Your task to perform on an android device: Clear all items from cart on walmart. Search for bose soundsport free on walmart, select the first entry, and add it to the cart. Image 0: 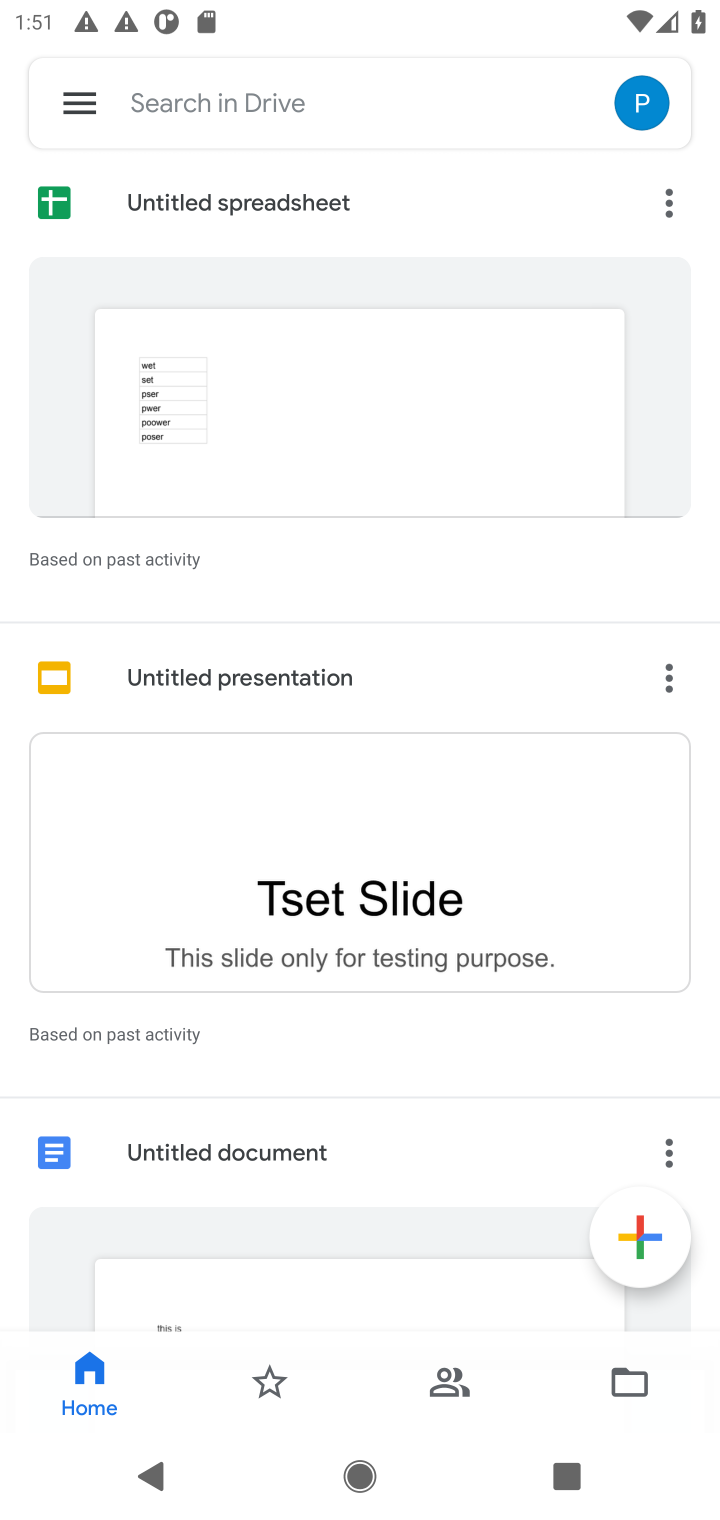
Step 0: press home button
Your task to perform on an android device: Clear all items from cart on walmart. Search for bose soundsport free on walmart, select the first entry, and add it to the cart. Image 1: 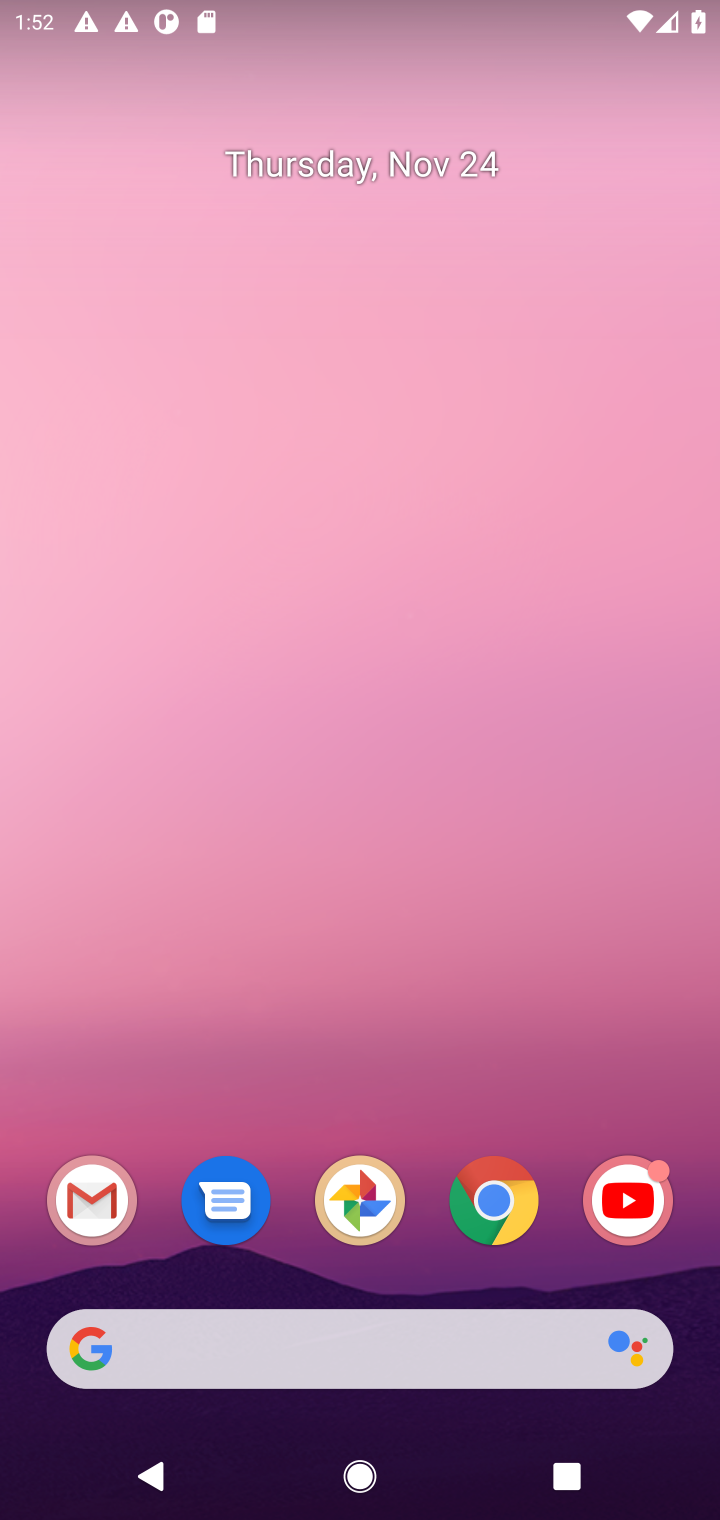
Step 1: click (253, 1368)
Your task to perform on an android device: Clear all items from cart on walmart. Search for bose soundsport free on walmart, select the first entry, and add it to the cart. Image 2: 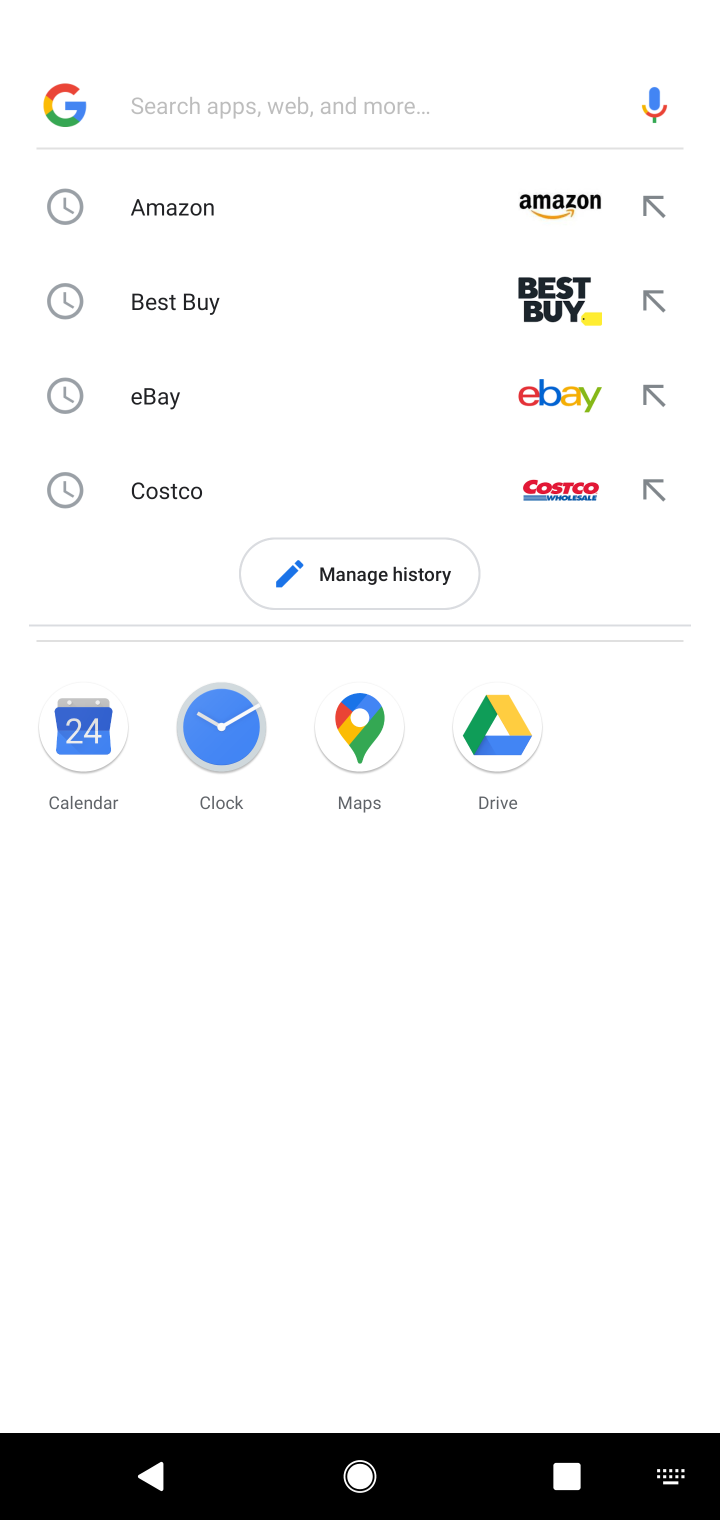
Step 2: type "walmart"
Your task to perform on an android device: Clear all items from cart on walmart. Search for bose soundsport free on walmart, select the first entry, and add it to the cart. Image 3: 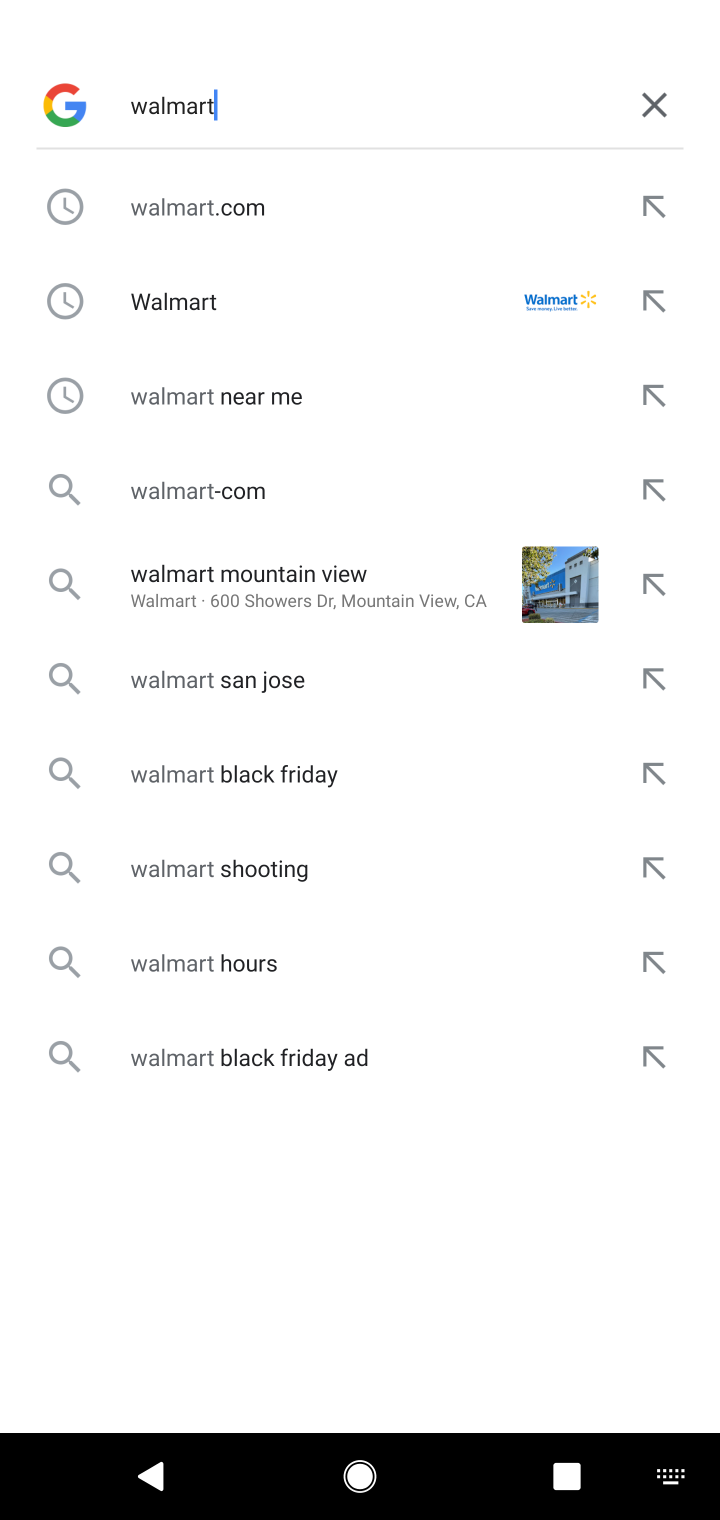
Step 3: click (403, 220)
Your task to perform on an android device: Clear all items from cart on walmart. Search for bose soundsport free on walmart, select the first entry, and add it to the cart. Image 4: 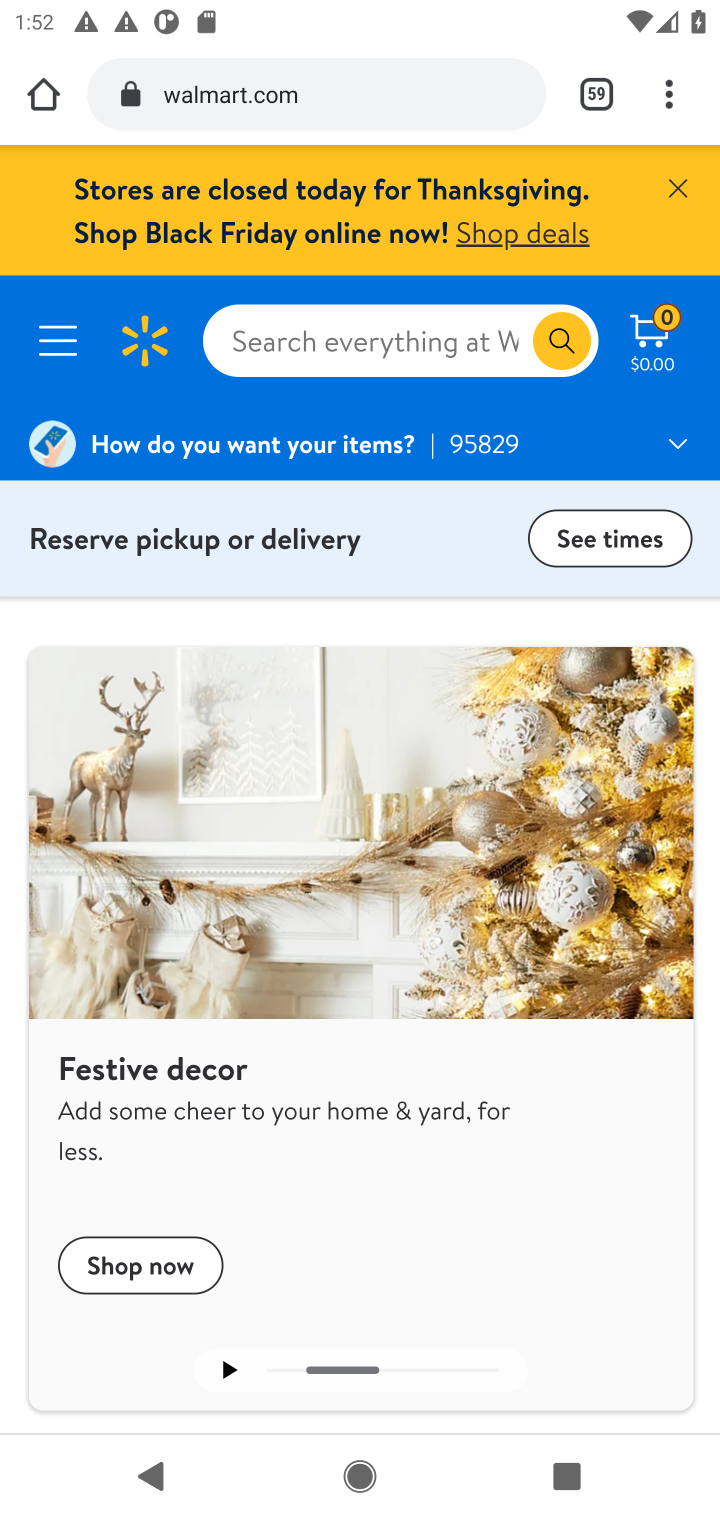
Step 4: click (688, 217)
Your task to perform on an android device: Clear all items from cart on walmart. Search for bose soundsport free on walmart, select the first entry, and add it to the cart. Image 5: 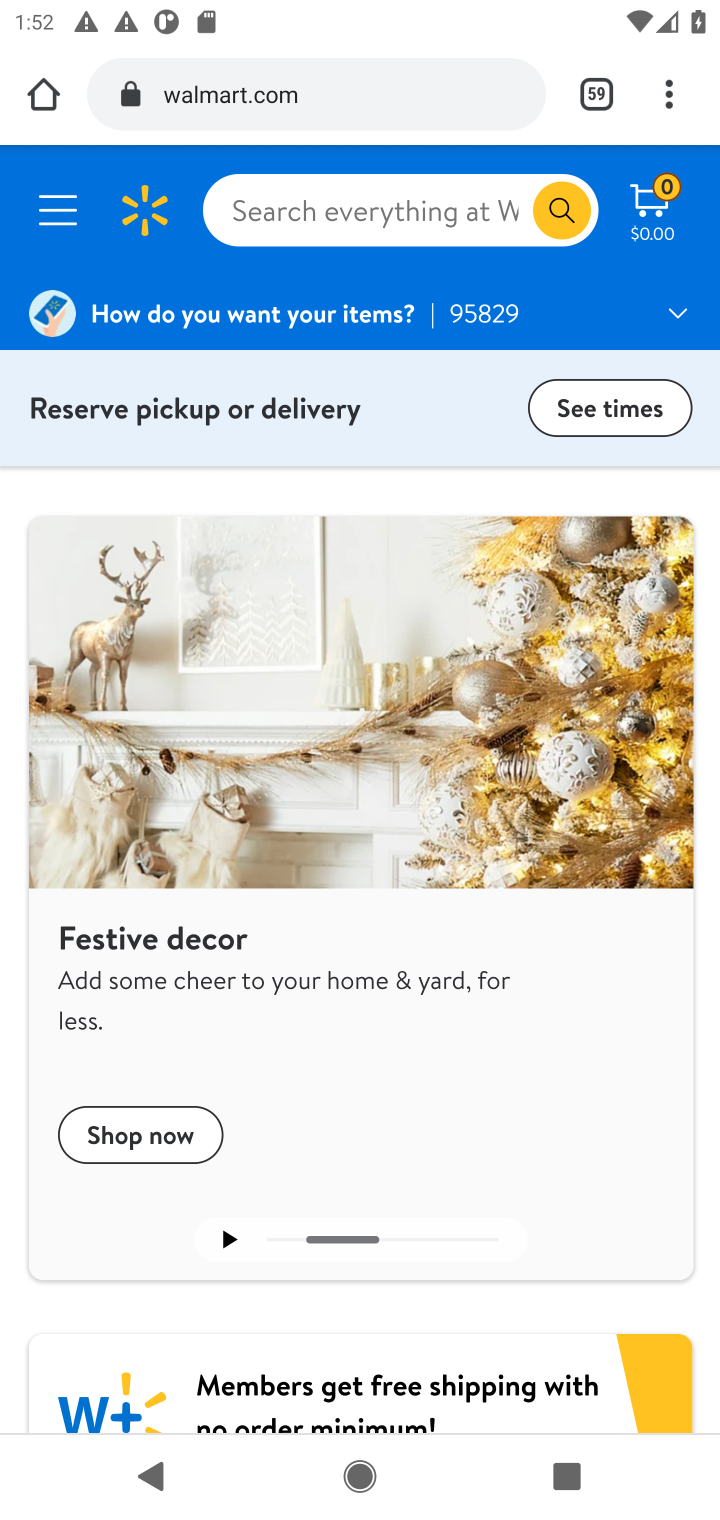
Step 5: click (389, 234)
Your task to perform on an android device: Clear all items from cart on walmart. Search for bose soundsport free on walmart, select the first entry, and add it to the cart. Image 6: 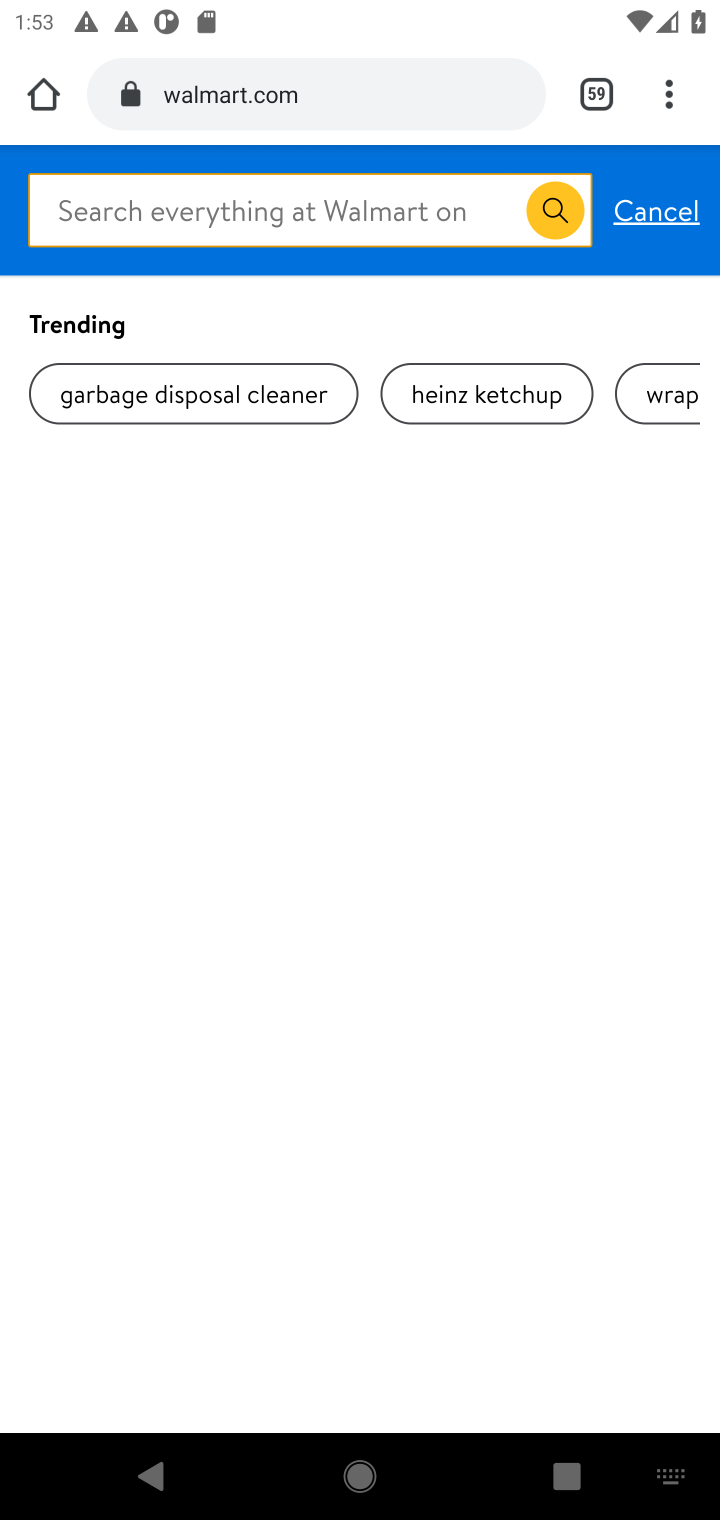
Step 6: type "bose soundsport"
Your task to perform on an android device: Clear all items from cart on walmart. Search for bose soundsport free on walmart, select the first entry, and add it to the cart. Image 7: 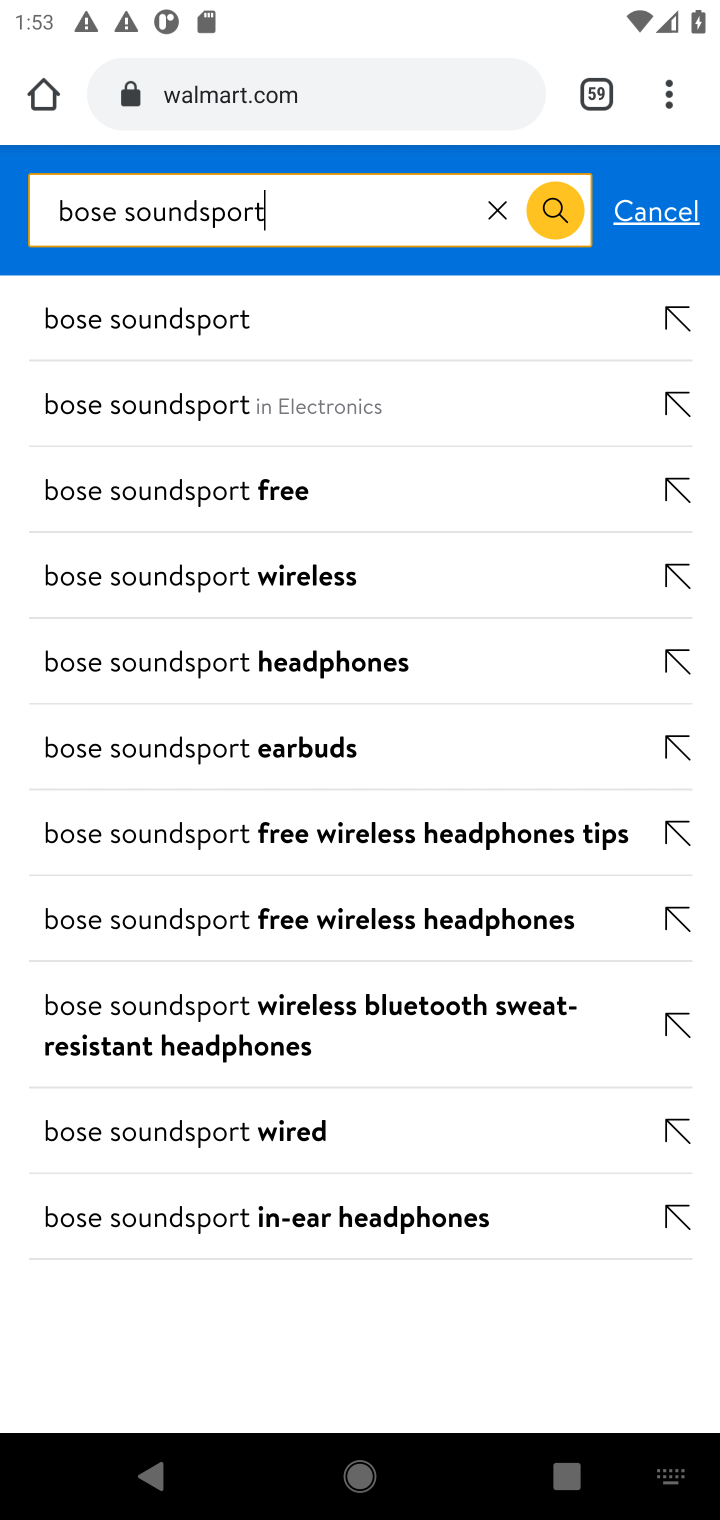
Step 7: click (301, 318)
Your task to perform on an android device: Clear all items from cart on walmart. Search for bose soundsport free on walmart, select the first entry, and add it to the cart. Image 8: 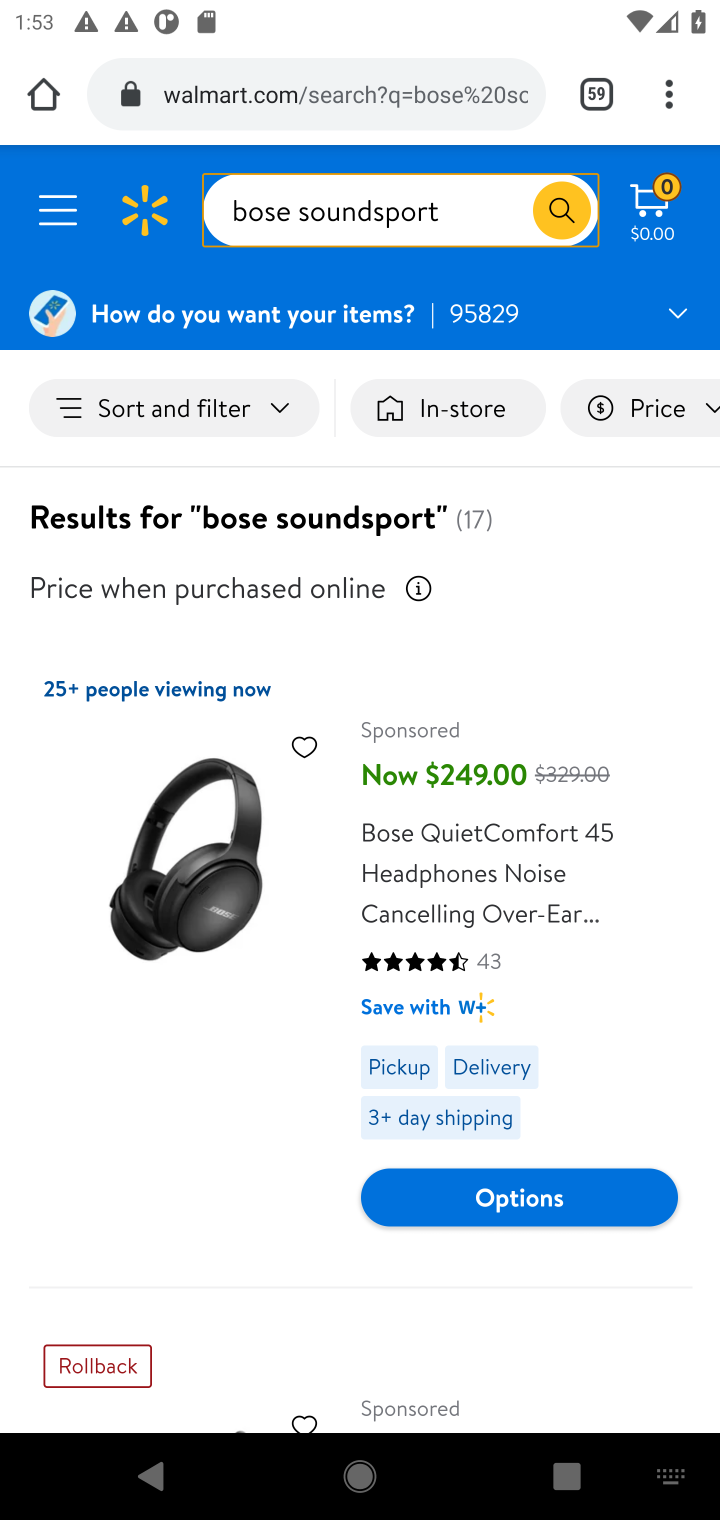
Step 8: click (596, 1202)
Your task to perform on an android device: Clear all items from cart on walmart. Search for bose soundsport free on walmart, select the first entry, and add it to the cart. Image 9: 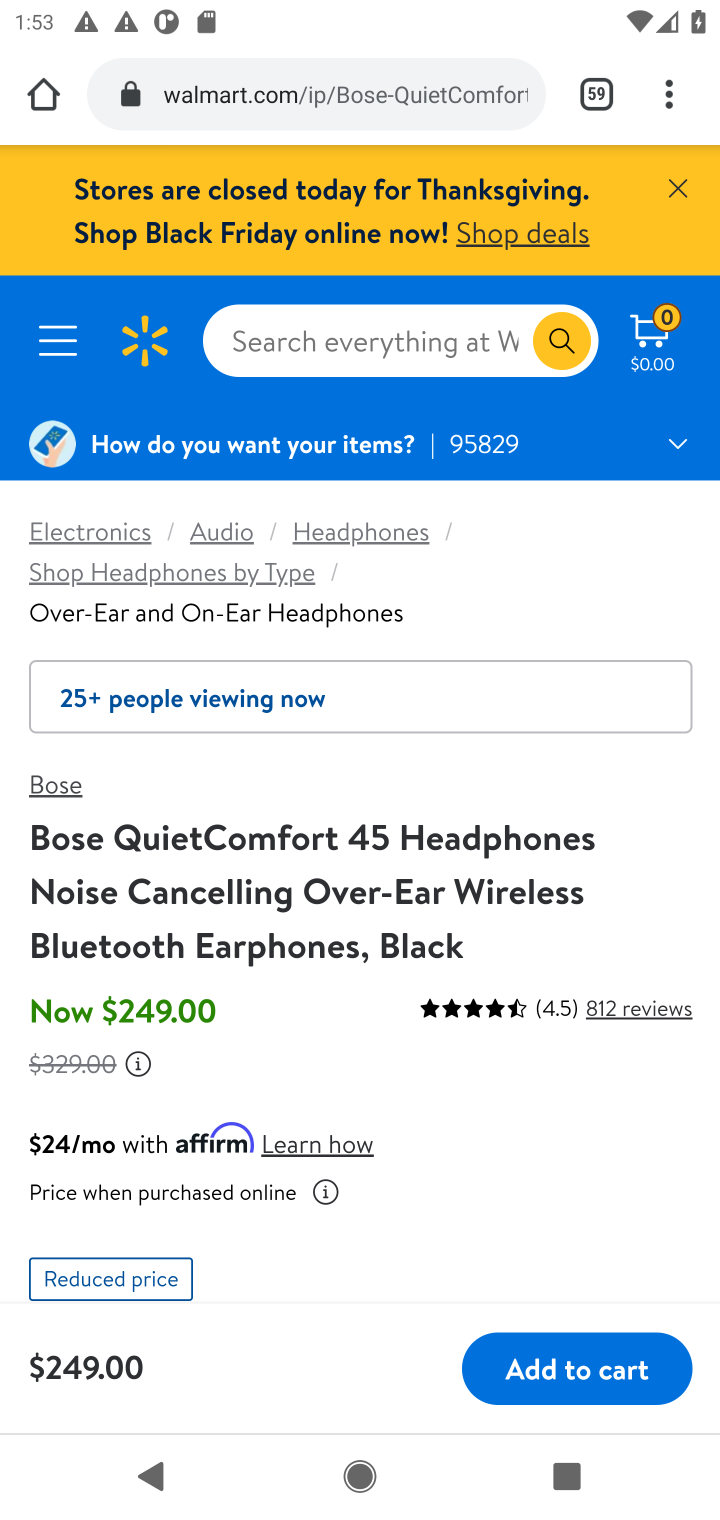
Step 9: click (613, 1341)
Your task to perform on an android device: Clear all items from cart on walmart. Search for bose soundsport free on walmart, select the first entry, and add it to the cart. Image 10: 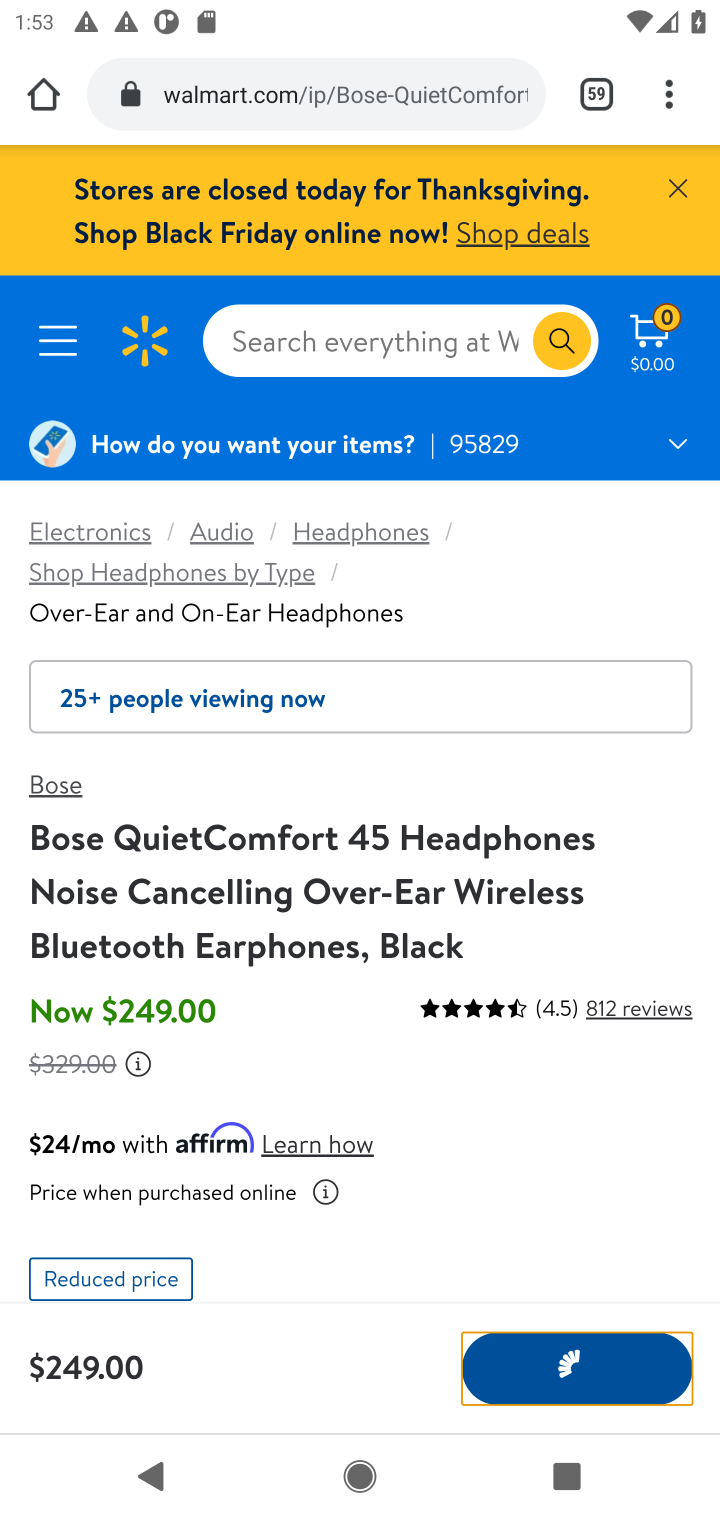
Step 10: task complete